Your task to perform on an android device: Look up the best rated headphones on Amazon. Image 0: 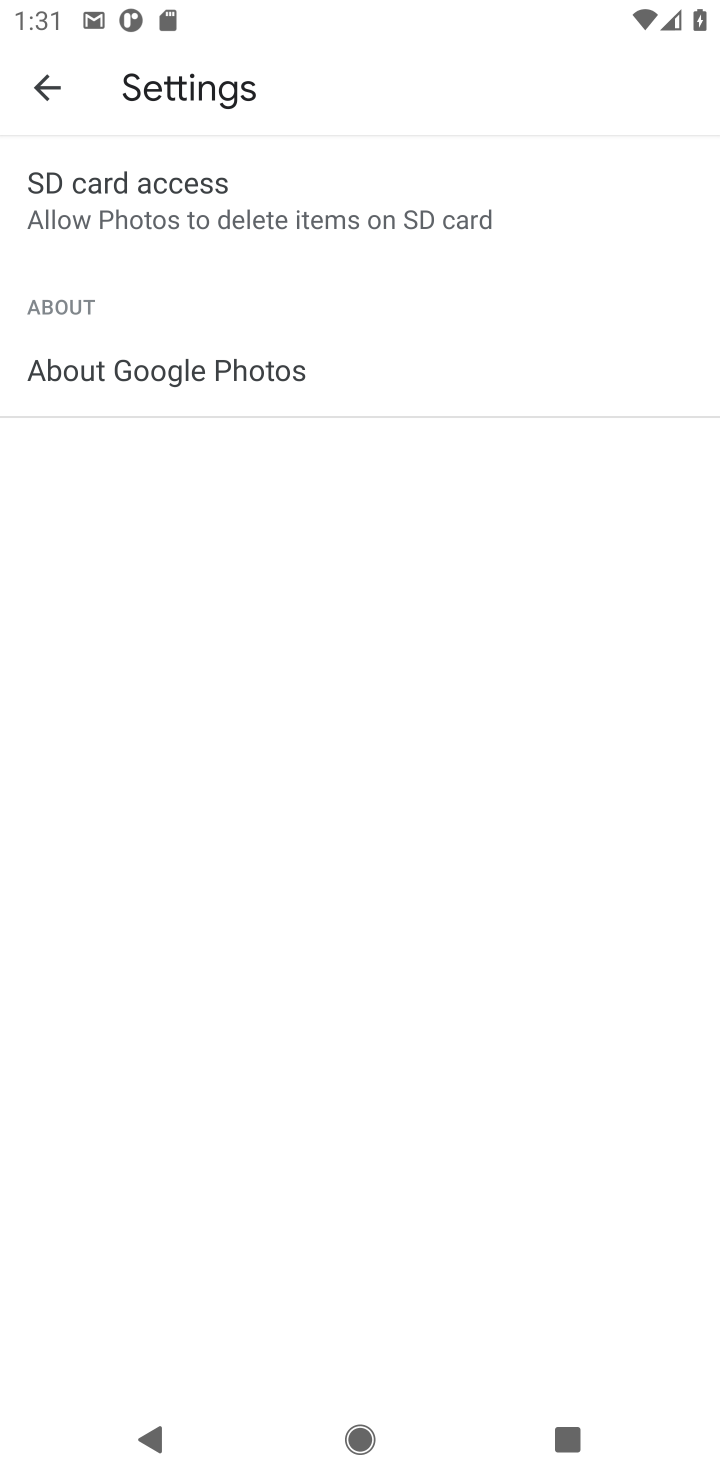
Step 0: task complete